Your task to perform on an android device: Show me productivity apps on the Play Store Image 0: 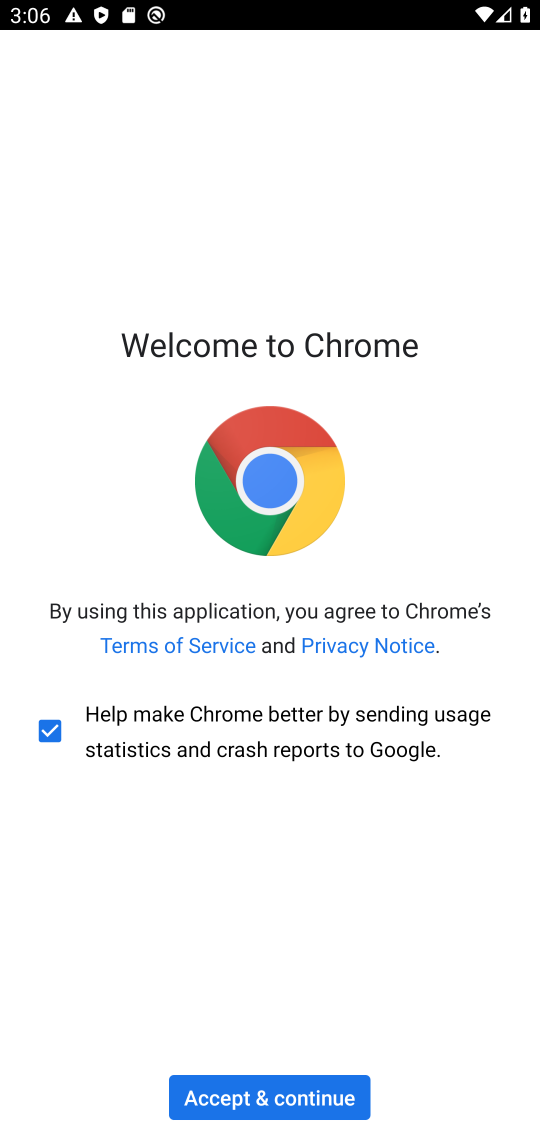
Step 0: press home button
Your task to perform on an android device: Show me productivity apps on the Play Store Image 1: 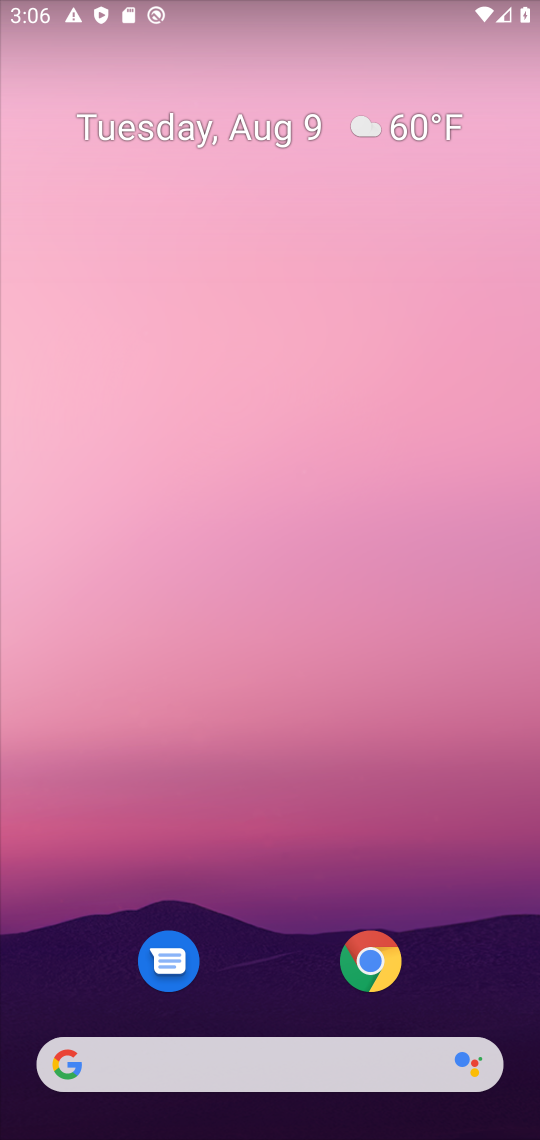
Step 1: drag from (307, 1027) to (316, 279)
Your task to perform on an android device: Show me productivity apps on the Play Store Image 2: 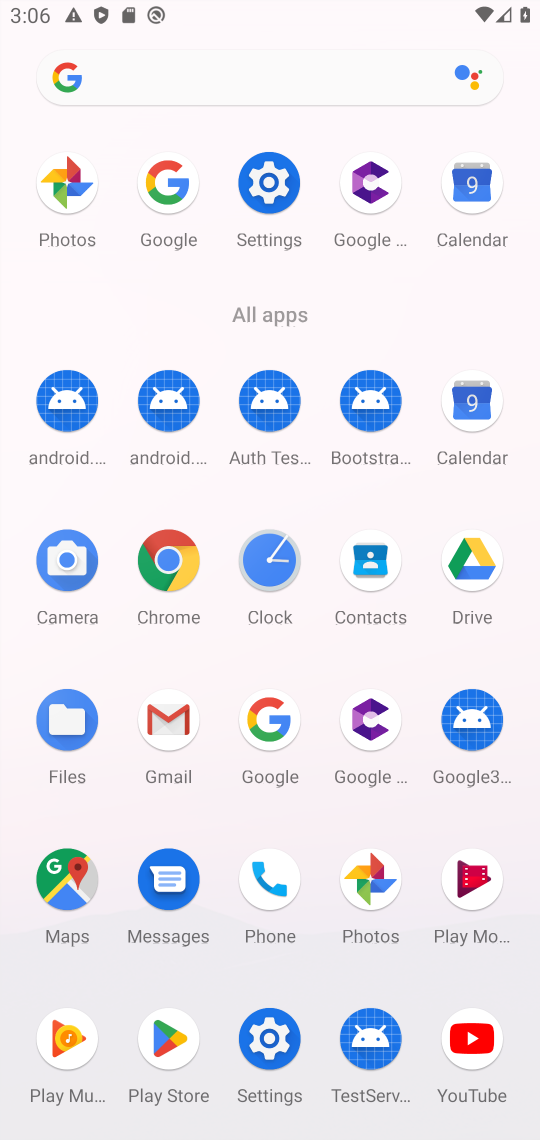
Step 2: click (184, 1035)
Your task to perform on an android device: Show me productivity apps on the Play Store Image 3: 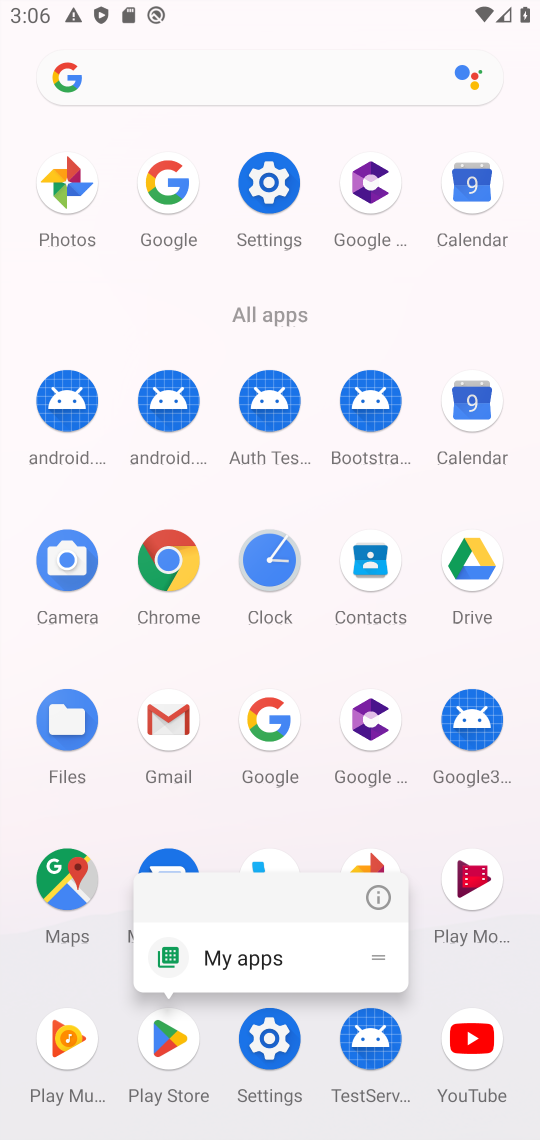
Step 3: click (176, 1039)
Your task to perform on an android device: Show me productivity apps on the Play Store Image 4: 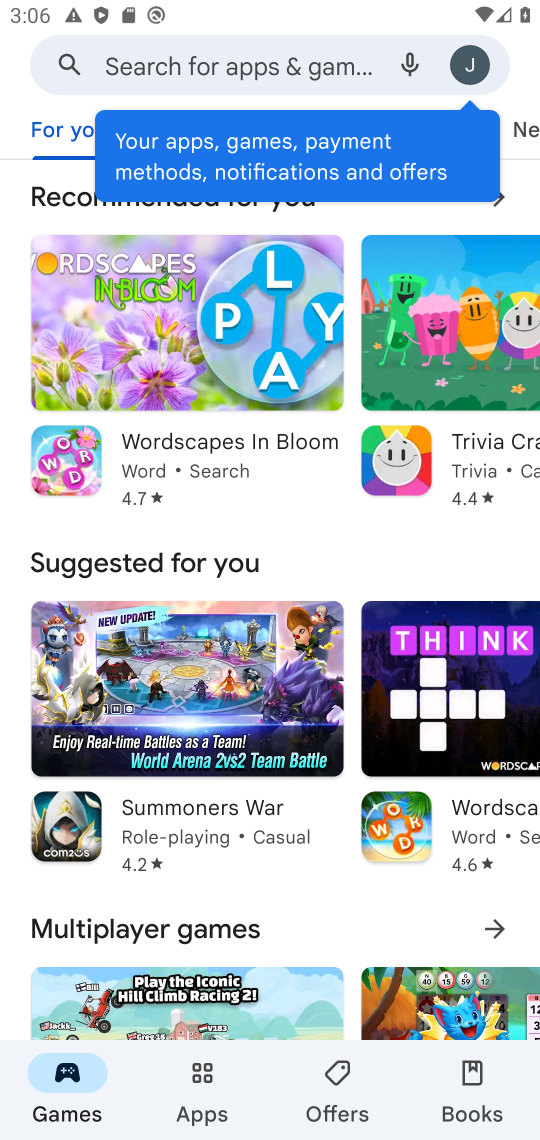
Step 4: click (199, 1094)
Your task to perform on an android device: Show me productivity apps on the Play Store Image 5: 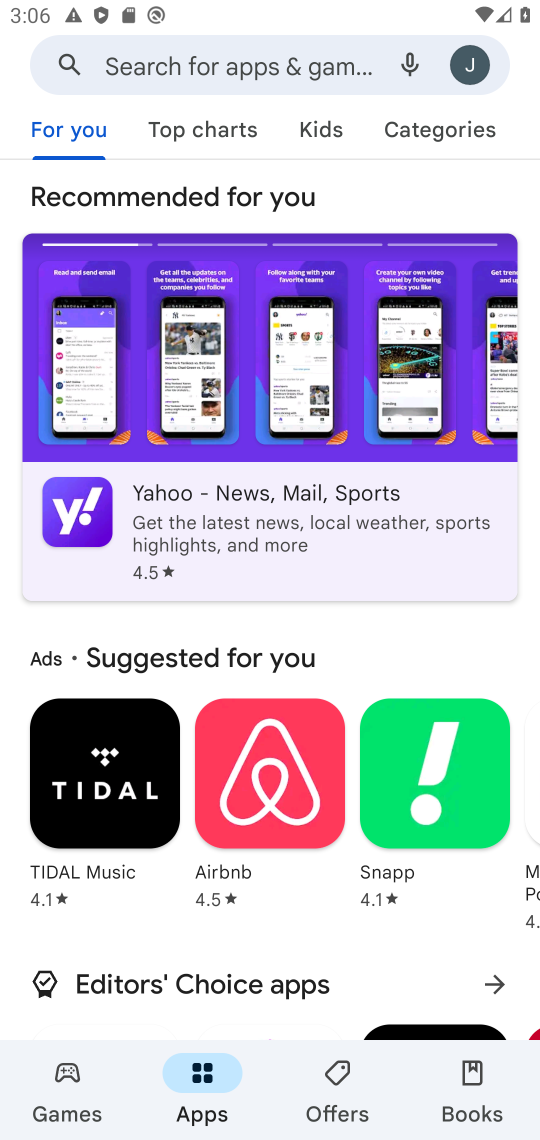
Step 5: task complete